Your task to perform on an android device: Open the calendar app, open the side menu, and click the "Day" option Image 0: 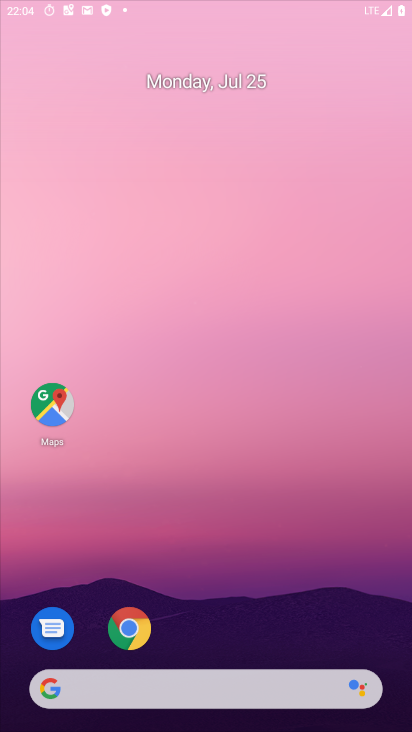
Step 0: press home button
Your task to perform on an android device: Open the calendar app, open the side menu, and click the "Day" option Image 1: 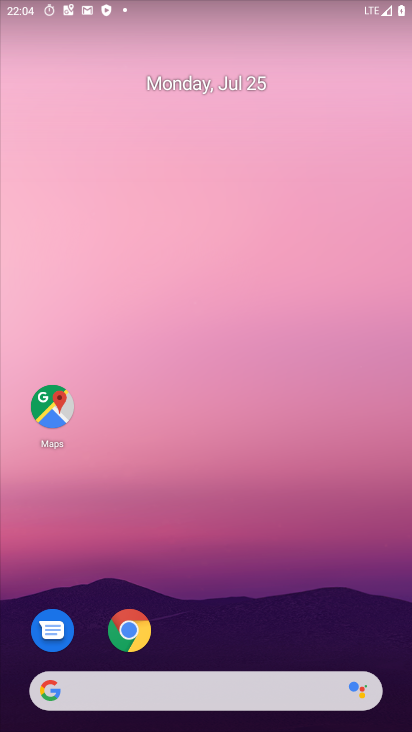
Step 1: drag from (242, 641) to (284, 153)
Your task to perform on an android device: Open the calendar app, open the side menu, and click the "Day" option Image 2: 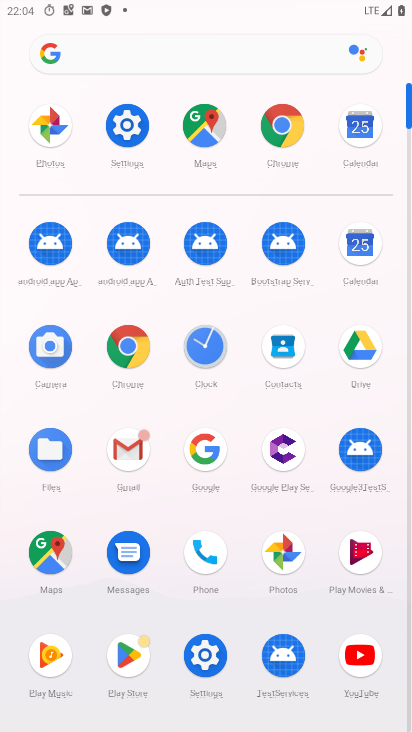
Step 2: click (362, 252)
Your task to perform on an android device: Open the calendar app, open the side menu, and click the "Day" option Image 3: 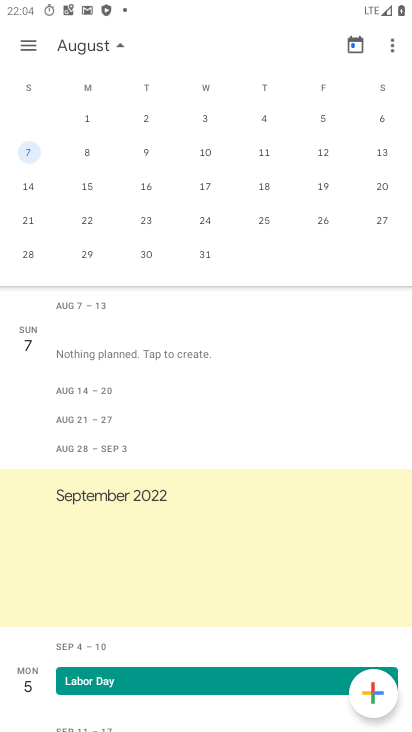
Step 3: click (27, 39)
Your task to perform on an android device: Open the calendar app, open the side menu, and click the "Day" option Image 4: 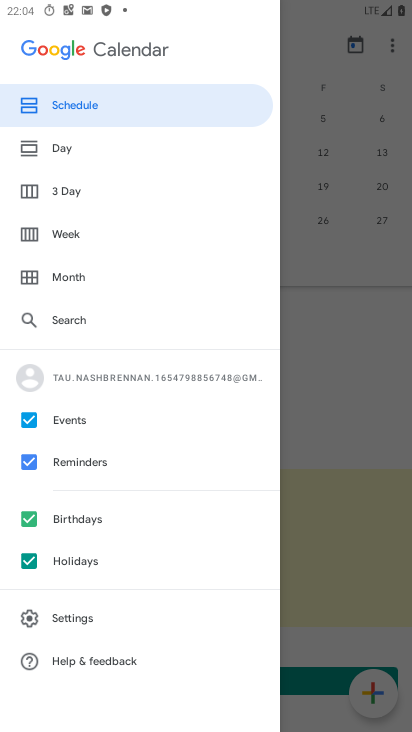
Step 4: click (67, 150)
Your task to perform on an android device: Open the calendar app, open the side menu, and click the "Day" option Image 5: 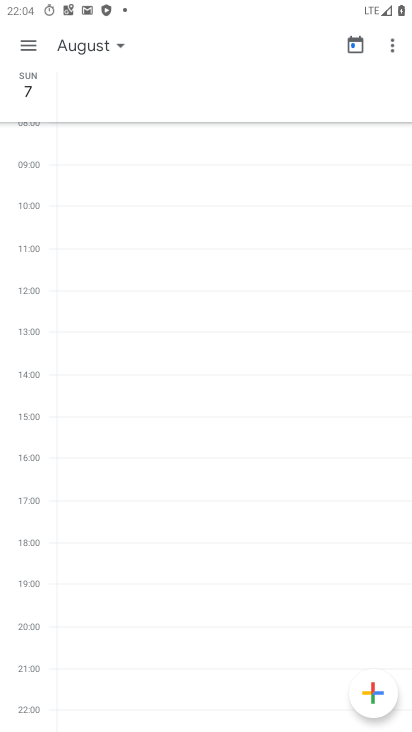
Step 5: task complete